Your task to perform on an android device: Open ESPN.com Image 0: 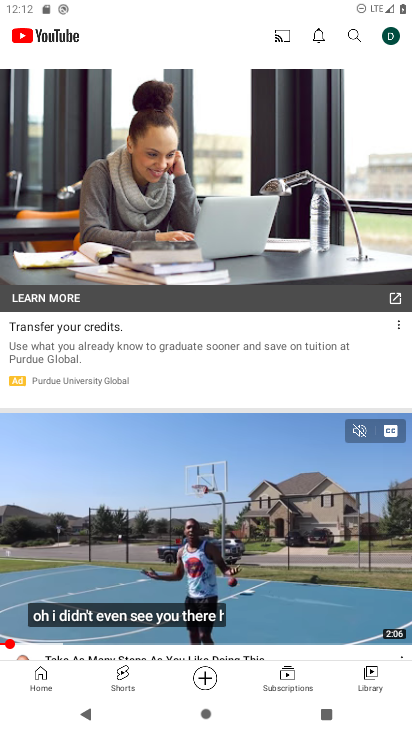
Step 0: press home button
Your task to perform on an android device: Open ESPN.com Image 1: 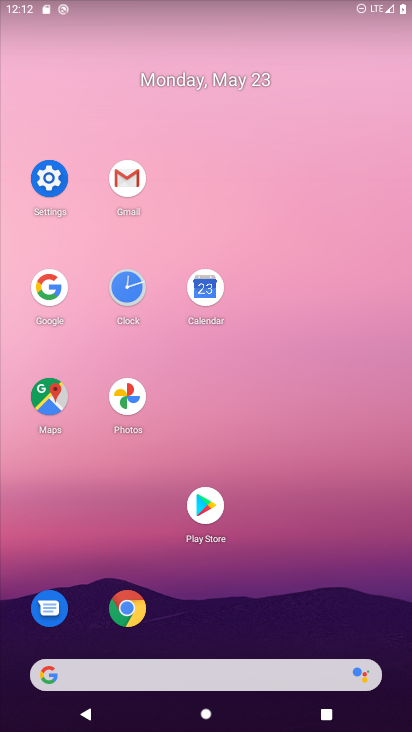
Step 1: click (142, 620)
Your task to perform on an android device: Open ESPN.com Image 2: 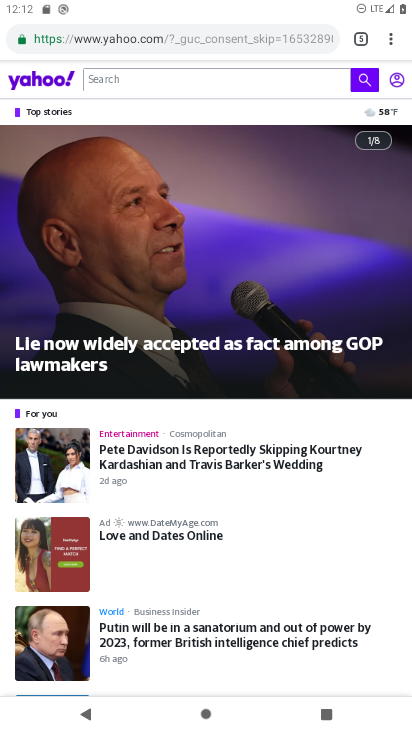
Step 2: click (352, 33)
Your task to perform on an android device: Open ESPN.com Image 3: 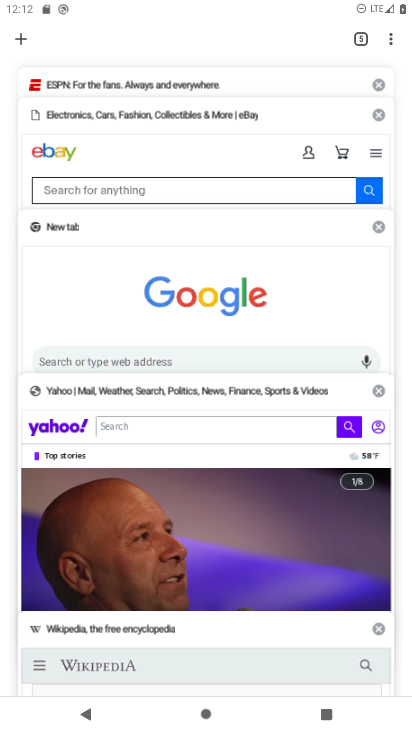
Step 3: click (57, 79)
Your task to perform on an android device: Open ESPN.com Image 4: 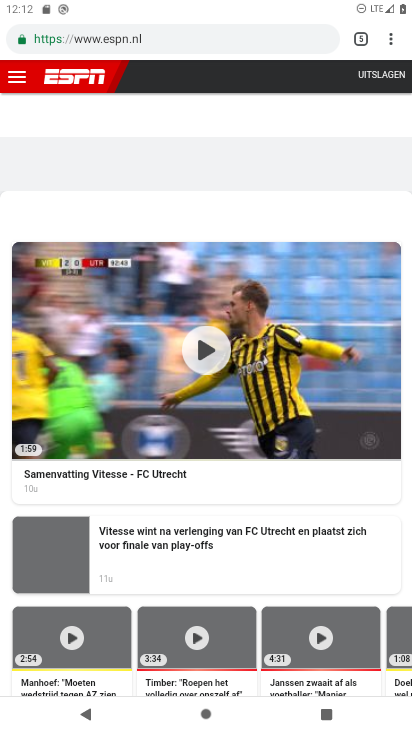
Step 4: task complete